Your task to perform on an android device: Go to location settings Image 0: 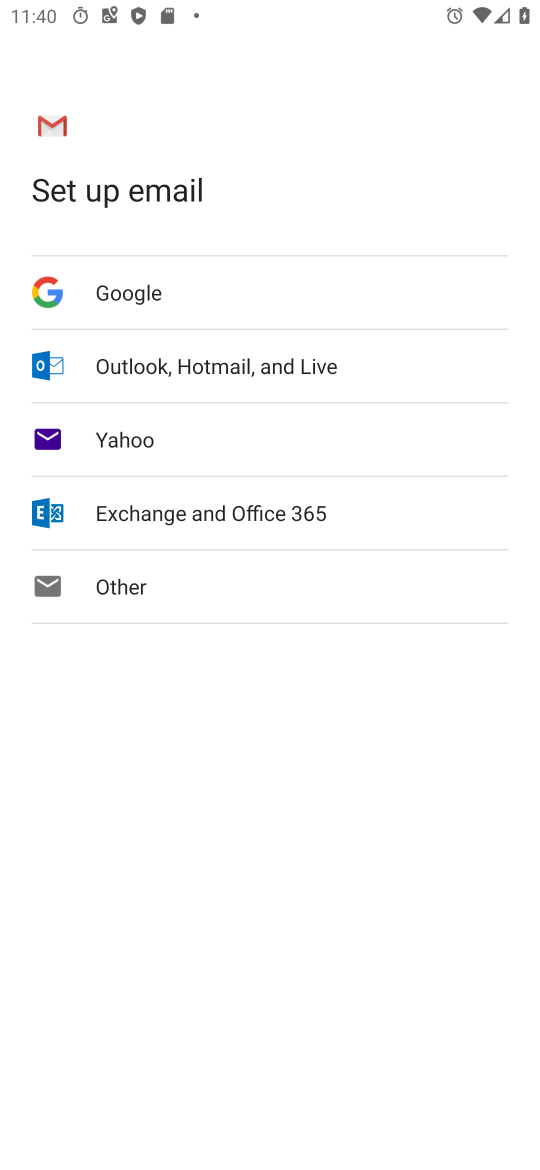
Step 0: press home button
Your task to perform on an android device: Go to location settings Image 1: 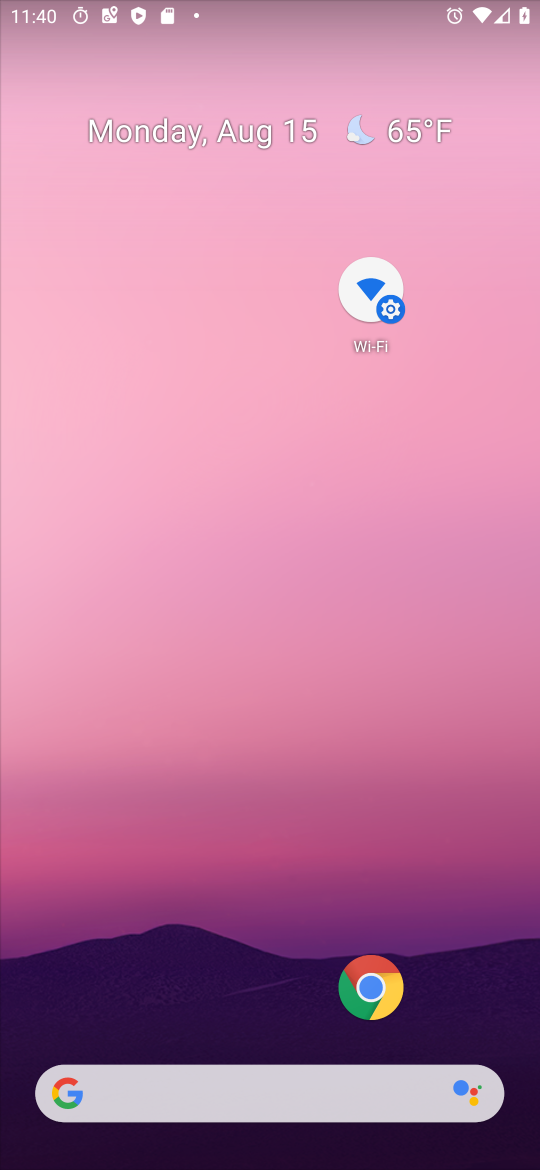
Step 1: drag from (259, 1032) to (162, 32)
Your task to perform on an android device: Go to location settings Image 2: 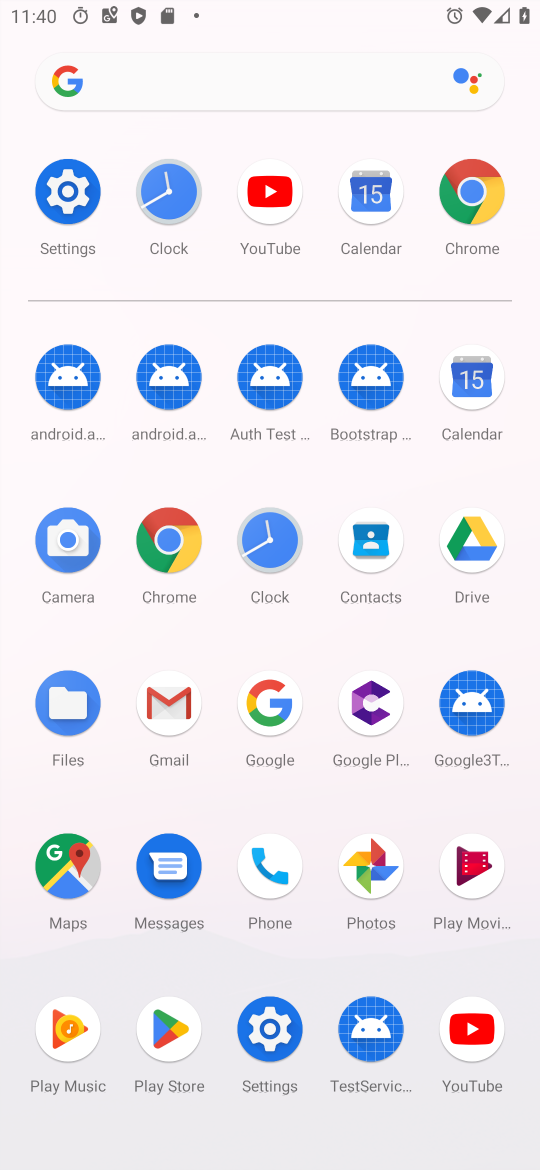
Step 2: click (241, 1040)
Your task to perform on an android device: Go to location settings Image 3: 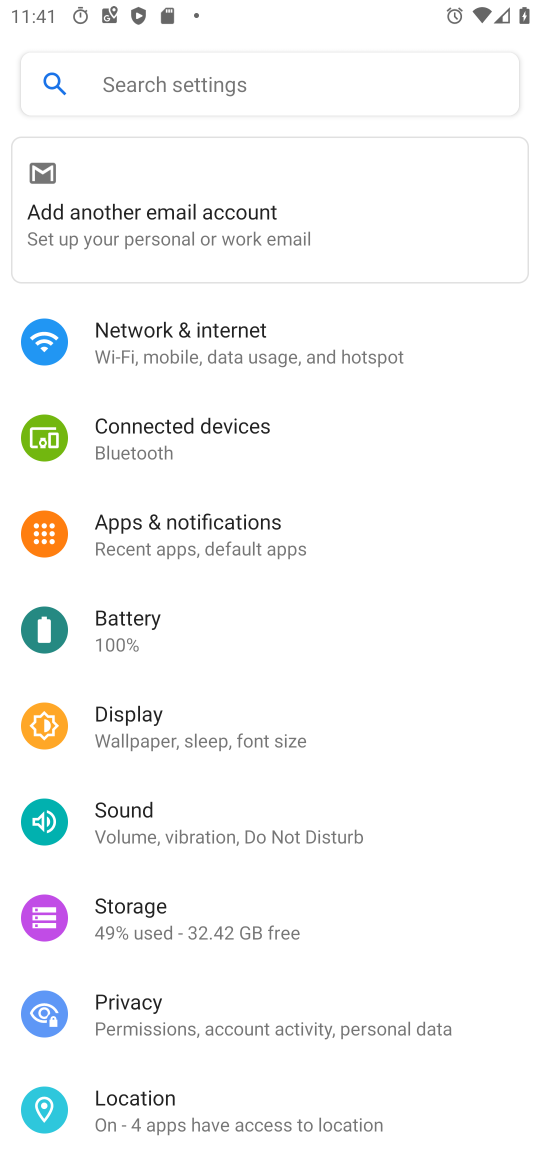
Step 3: click (164, 1114)
Your task to perform on an android device: Go to location settings Image 4: 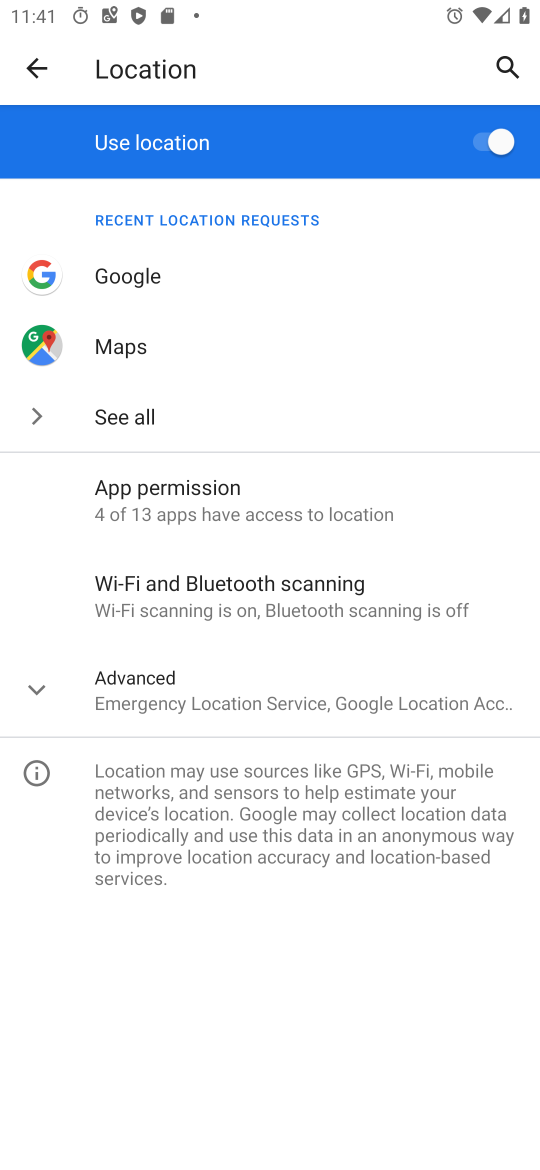
Step 4: click (240, 690)
Your task to perform on an android device: Go to location settings Image 5: 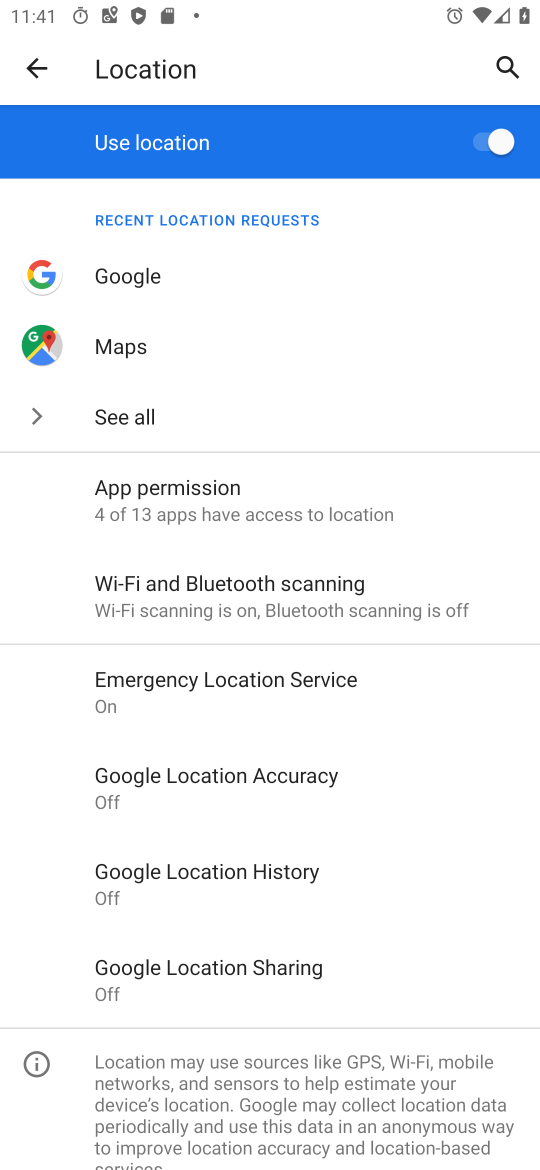
Step 5: task complete